Your task to perform on an android device: move a message to another label in the gmail app Image 0: 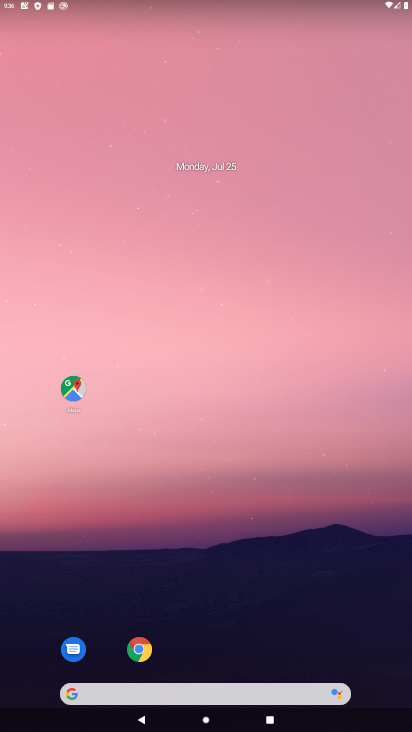
Step 0: drag from (281, 636) to (144, 139)
Your task to perform on an android device: move a message to another label in the gmail app Image 1: 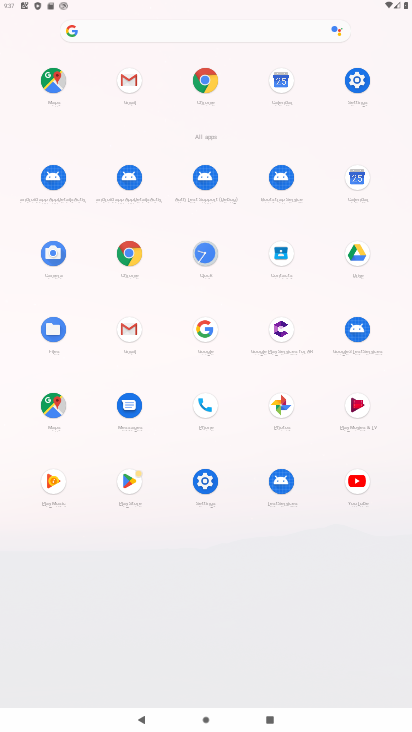
Step 1: click (133, 86)
Your task to perform on an android device: move a message to another label in the gmail app Image 2: 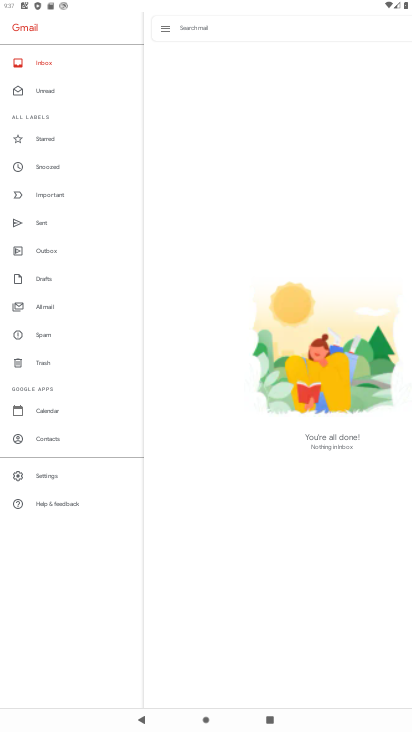
Step 2: click (46, 59)
Your task to perform on an android device: move a message to another label in the gmail app Image 3: 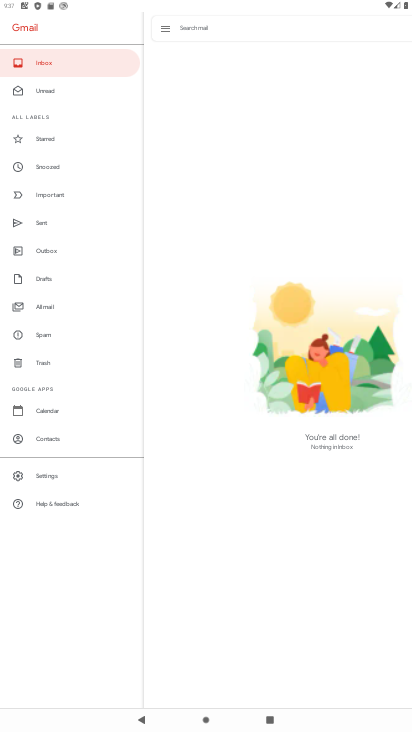
Step 3: task complete